Your task to perform on an android device: Show me the alarms in the clock app Image 0: 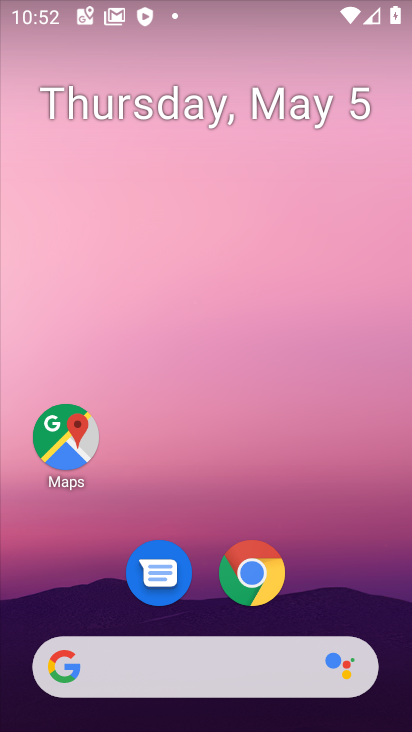
Step 0: drag from (313, 621) to (361, 257)
Your task to perform on an android device: Show me the alarms in the clock app Image 1: 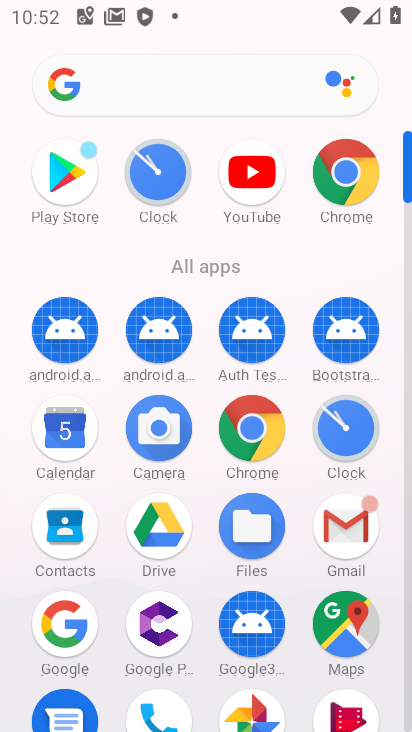
Step 1: click (334, 440)
Your task to perform on an android device: Show me the alarms in the clock app Image 2: 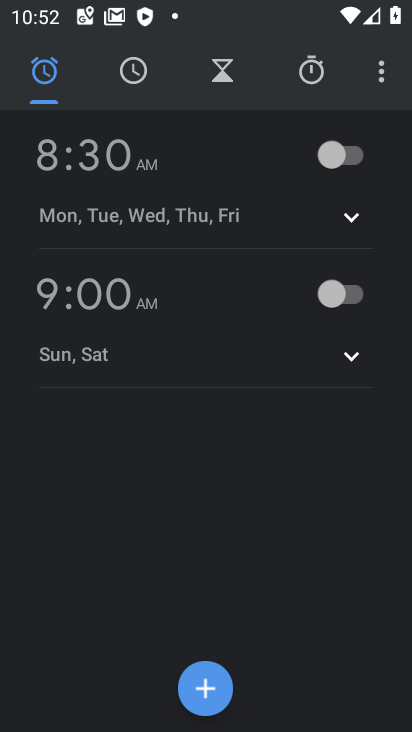
Step 2: click (146, 70)
Your task to perform on an android device: Show me the alarms in the clock app Image 3: 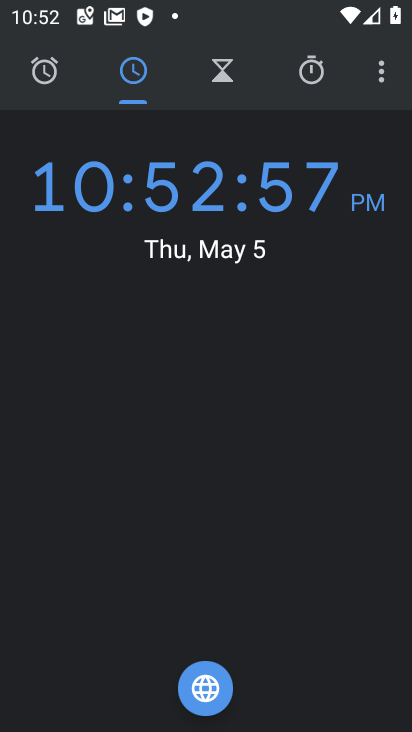
Step 3: click (57, 59)
Your task to perform on an android device: Show me the alarms in the clock app Image 4: 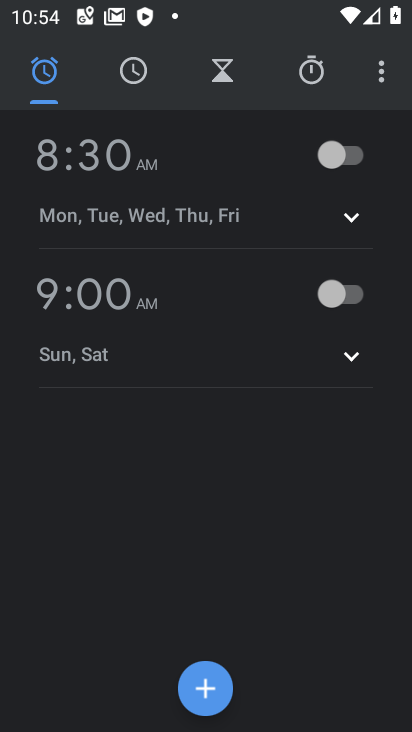
Step 4: task complete